Your task to perform on an android device: Go to sound settings Image 0: 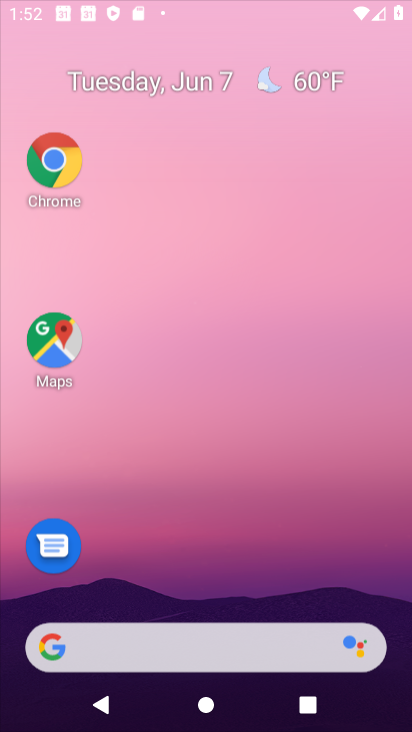
Step 0: drag from (196, 359) to (215, 62)
Your task to perform on an android device: Go to sound settings Image 1: 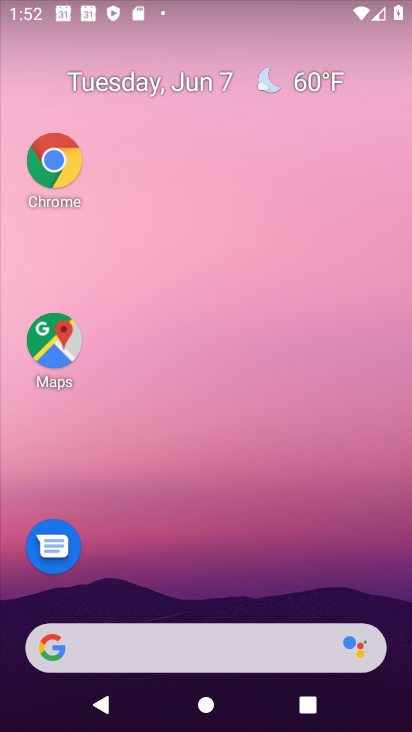
Step 1: drag from (192, 523) to (297, 47)
Your task to perform on an android device: Go to sound settings Image 2: 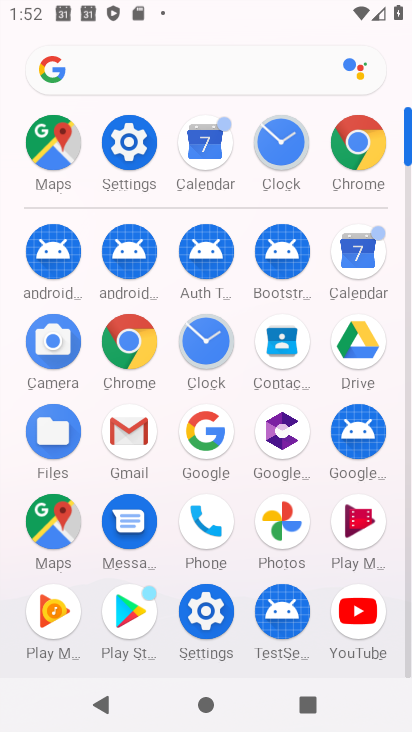
Step 2: click (122, 143)
Your task to perform on an android device: Go to sound settings Image 3: 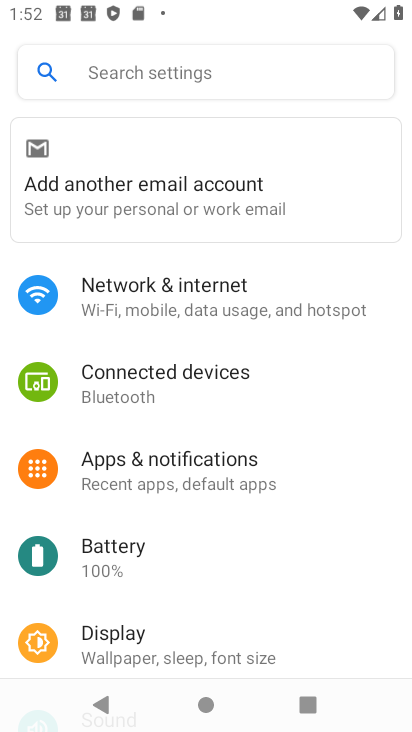
Step 3: drag from (162, 594) to (236, 137)
Your task to perform on an android device: Go to sound settings Image 4: 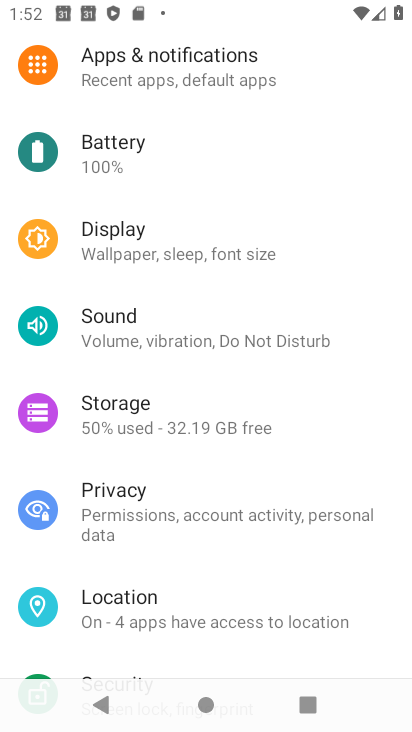
Step 4: click (175, 336)
Your task to perform on an android device: Go to sound settings Image 5: 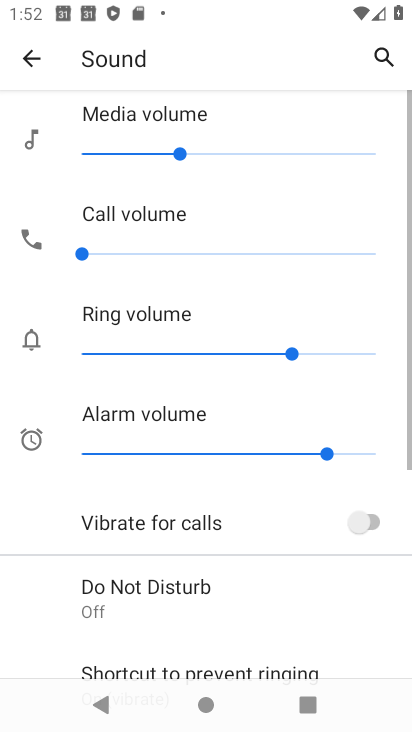
Step 5: task complete